Your task to perform on an android device: Go to sound settings Image 0: 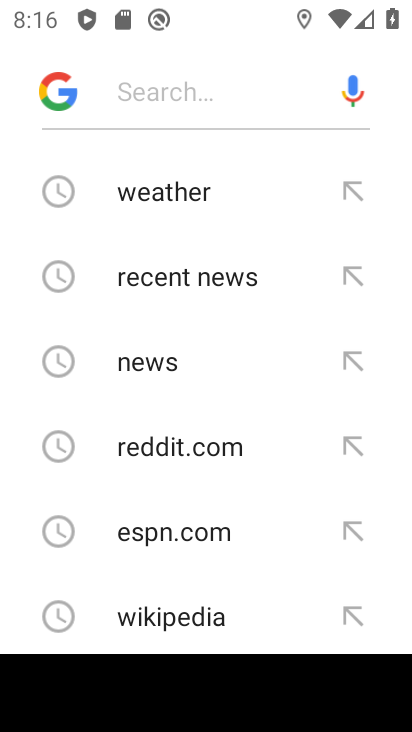
Step 0: press back button
Your task to perform on an android device: Go to sound settings Image 1: 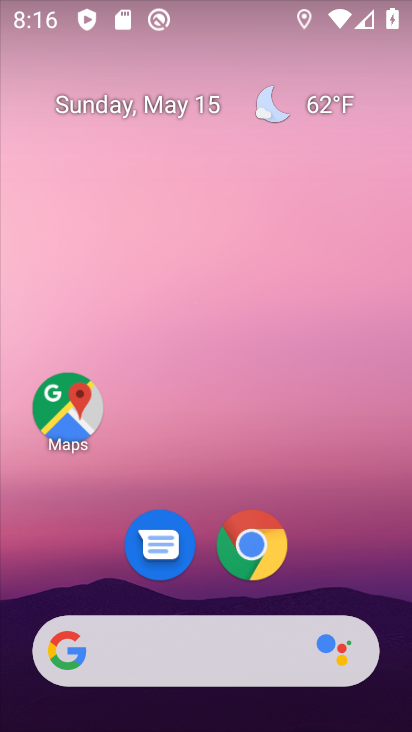
Step 1: drag from (302, 564) to (248, 249)
Your task to perform on an android device: Go to sound settings Image 2: 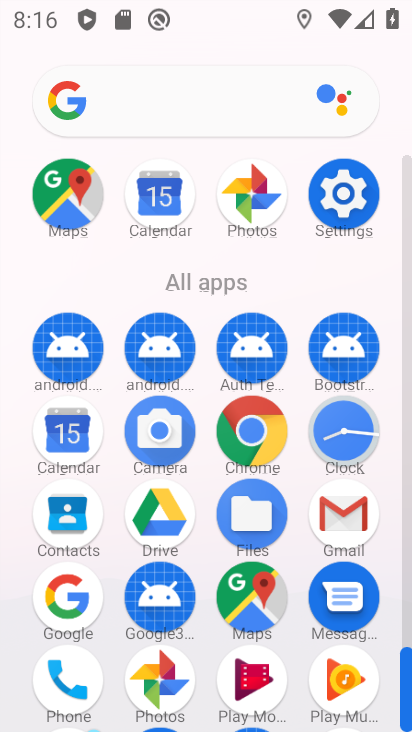
Step 2: click (371, 205)
Your task to perform on an android device: Go to sound settings Image 3: 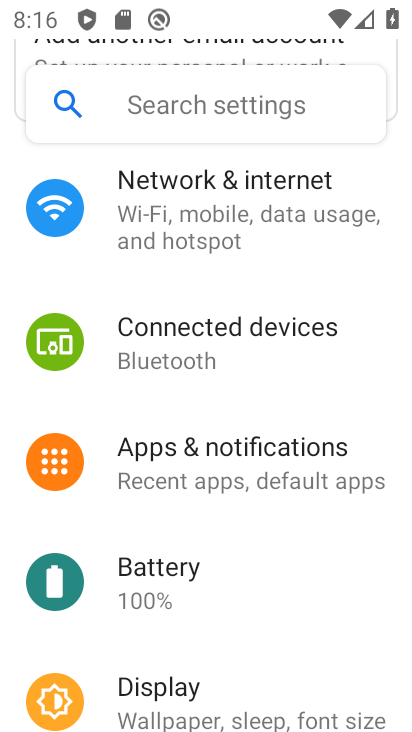
Step 3: drag from (186, 613) to (203, 252)
Your task to perform on an android device: Go to sound settings Image 4: 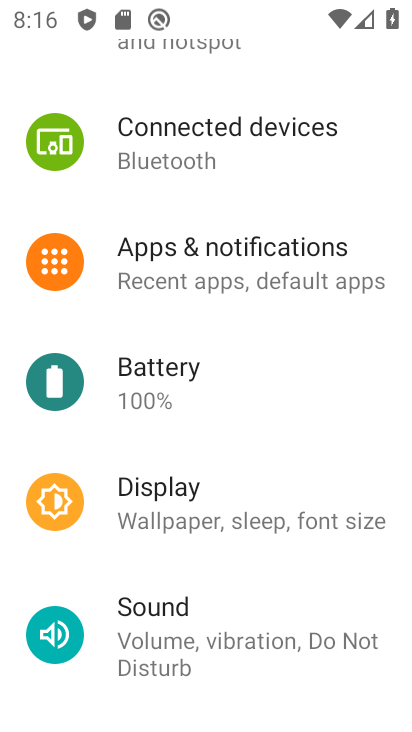
Step 4: click (122, 653)
Your task to perform on an android device: Go to sound settings Image 5: 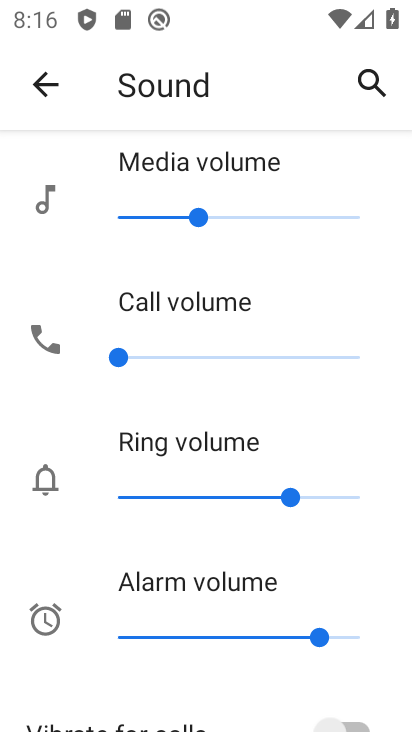
Step 5: task complete